Your task to perform on an android device: Open the phone app and click the voicemail tab. Image 0: 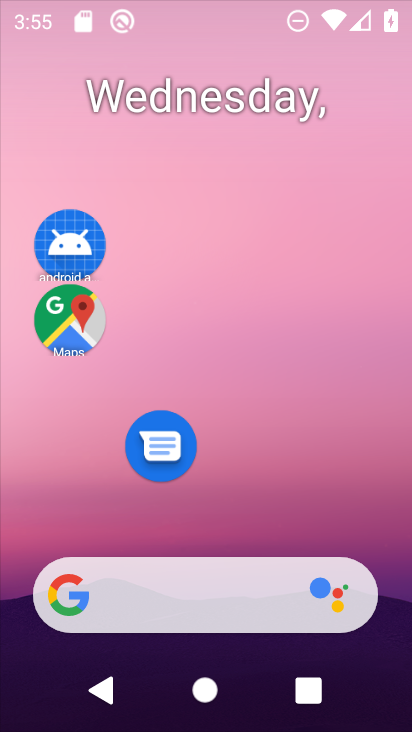
Step 0: drag from (346, 510) to (288, 124)
Your task to perform on an android device: Open the phone app and click the voicemail tab. Image 1: 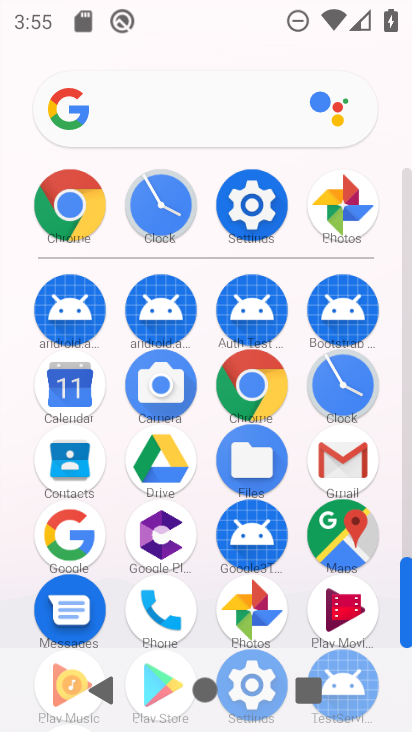
Step 1: click (148, 619)
Your task to perform on an android device: Open the phone app and click the voicemail tab. Image 2: 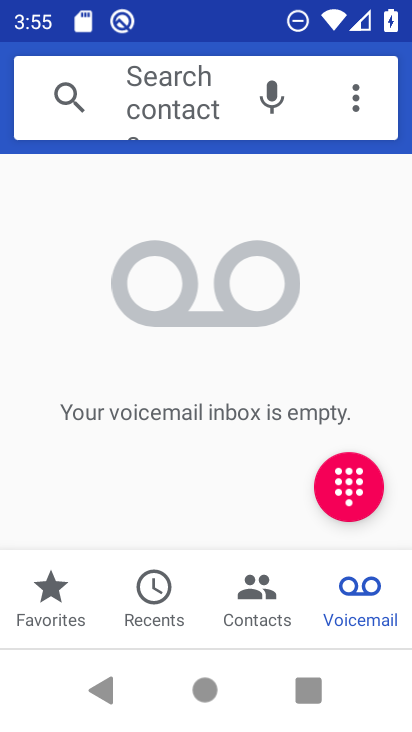
Step 2: click (344, 582)
Your task to perform on an android device: Open the phone app and click the voicemail tab. Image 3: 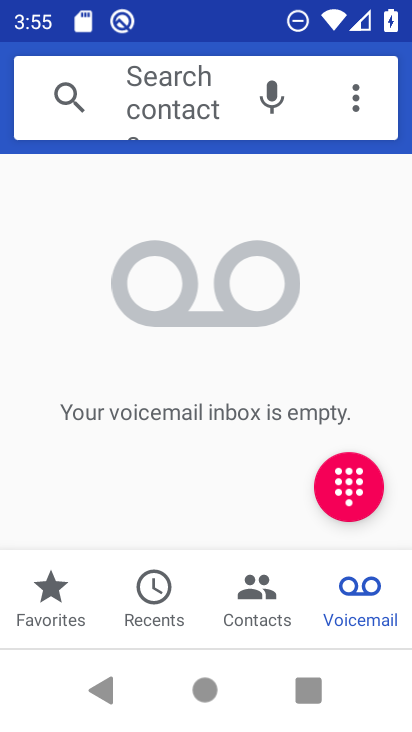
Step 3: task complete